Your task to perform on an android device: turn off improve location accuracy Image 0: 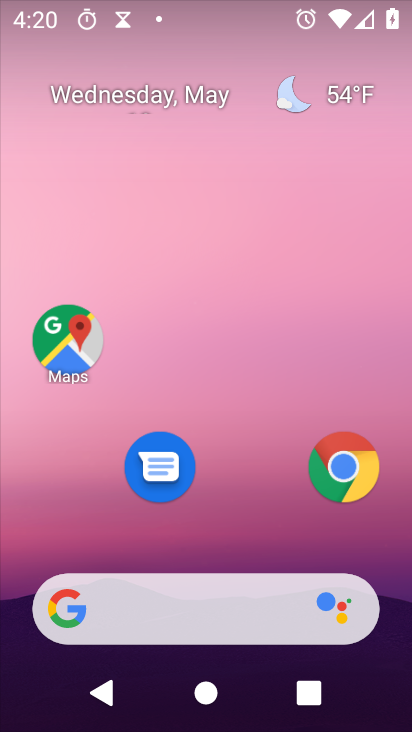
Step 0: drag from (266, 565) to (216, 15)
Your task to perform on an android device: turn off improve location accuracy Image 1: 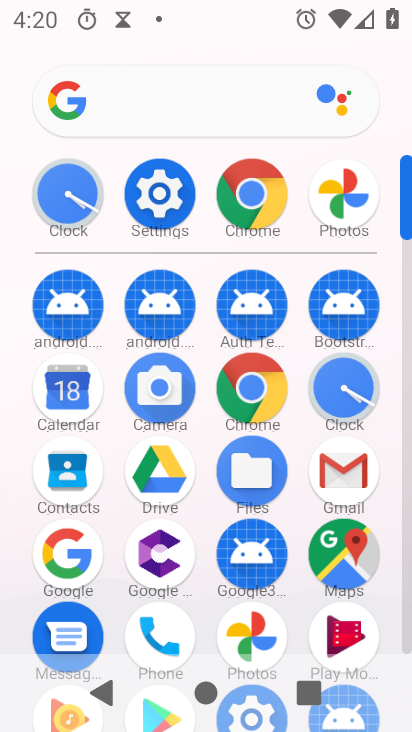
Step 1: click (161, 187)
Your task to perform on an android device: turn off improve location accuracy Image 2: 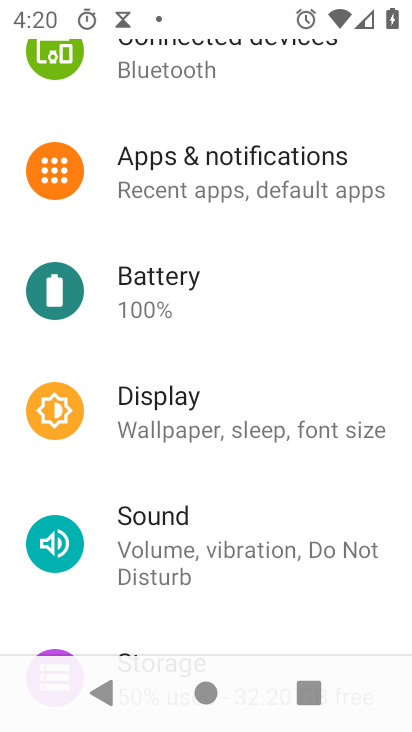
Step 2: drag from (165, 630) to (198, 117)
Your task to perform on an android device: turn off improve location accuracy Image 3: 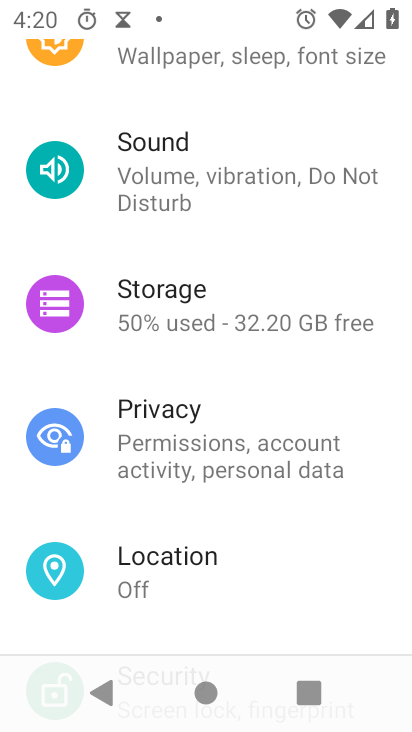
Step 3: click (253, 587)
Your task to perform on an android device: turn off improve location accuracy Image 4: 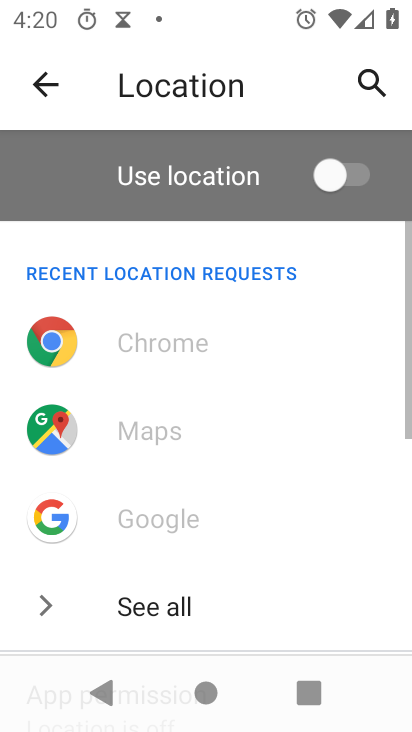
Step 4: drag from (253, 587) to (232, 179)
Your task to perform on an android device: turn off improve location accuracy Image 5: 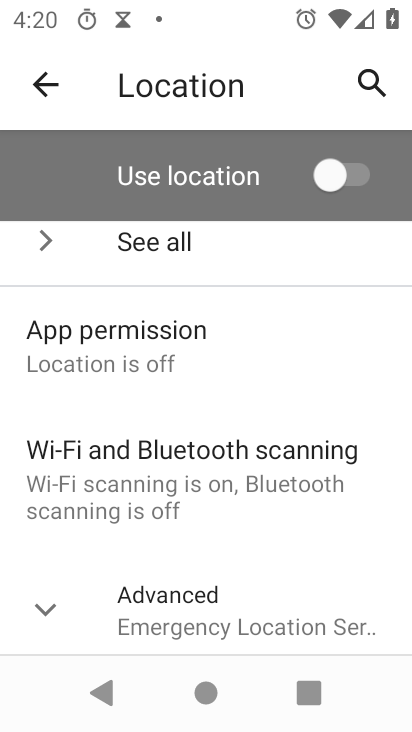
Step 5: click (307, 585)
Your task to perform on an android device: turn off improve location accuracy Image 6: 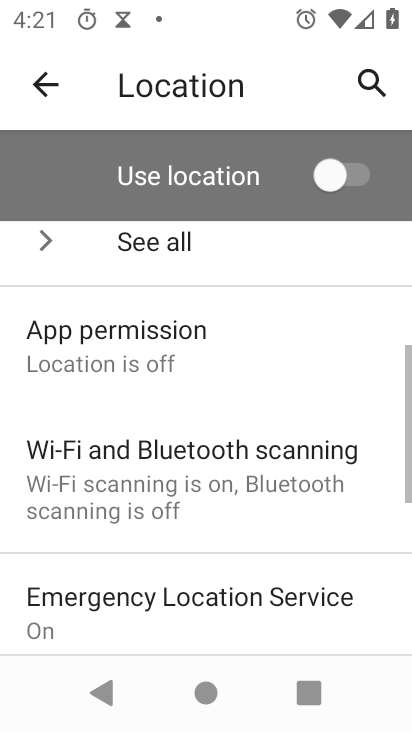
Step 6: drag from (307, 585) to (314, 190)
Your task to perform on an android device: turn off improve location accuracy Image 7: 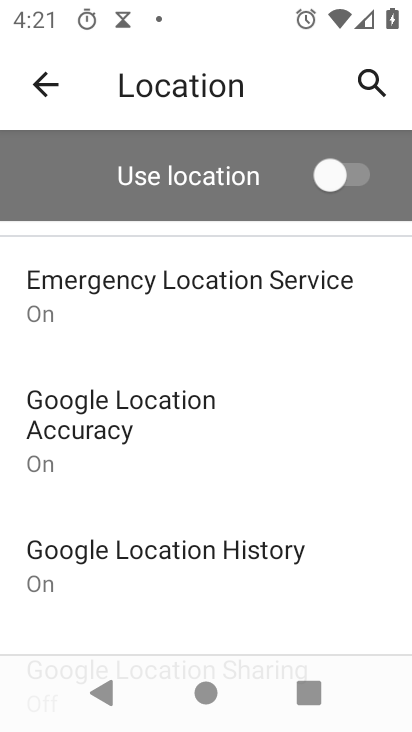
Step 7: drag from (303, 622) to (221, 329)
Your task to perform on an android device: turn off improve location accuracy Image 8: 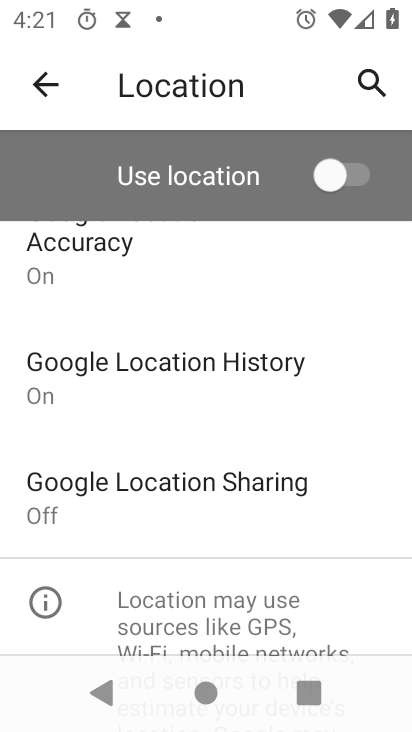
Step 8: click (190, 280)
Your task to perform on an android device: turn off improve location accuracy Image 9: 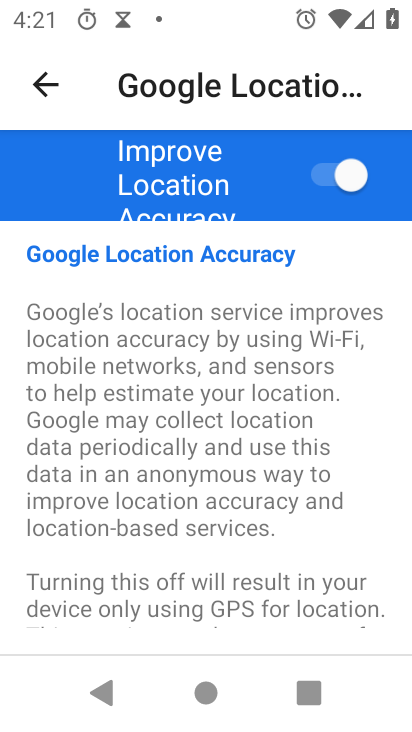
Step 9: click (329, 178)
Your task to perform on an android device: turn off improve location accuracy Image 10: 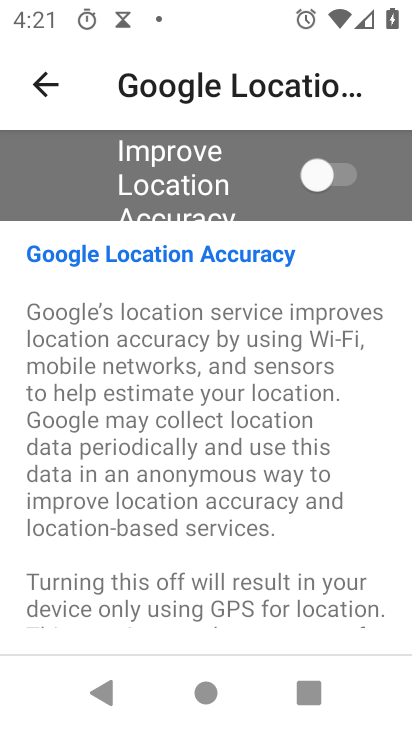
Step 10: task complete